Your task to perform on an android device: Show me popular games on the Play Store Image 0: 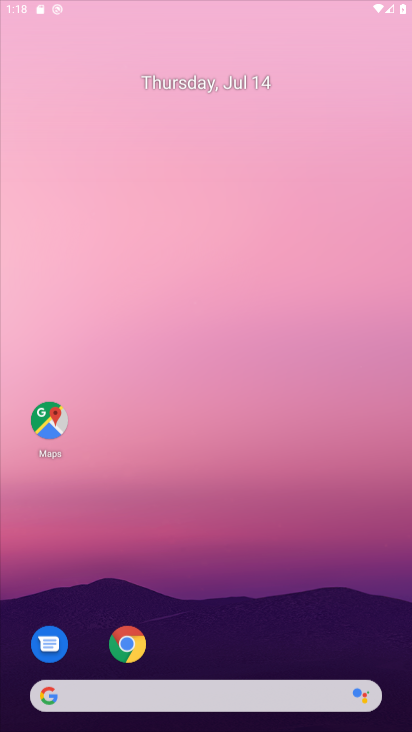
Step 0: drag from (204, 647) to (309, 140)
Your task to perform on an android device: Show me popular games on the Play Store Image 1: 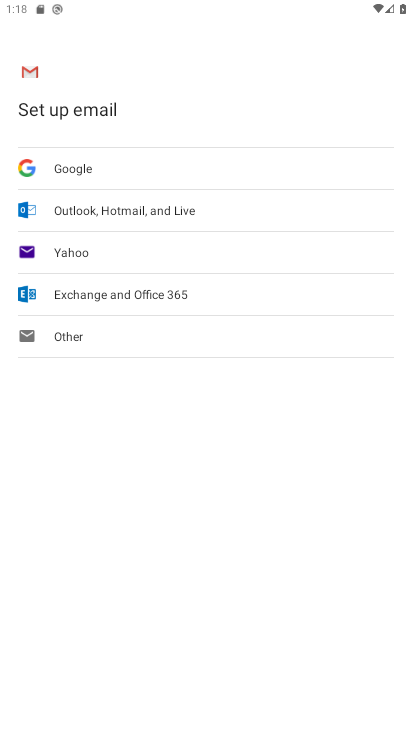
Step 1: press home button
Your task to perform on an android device: Show me popular games on the Play Store Image 2: 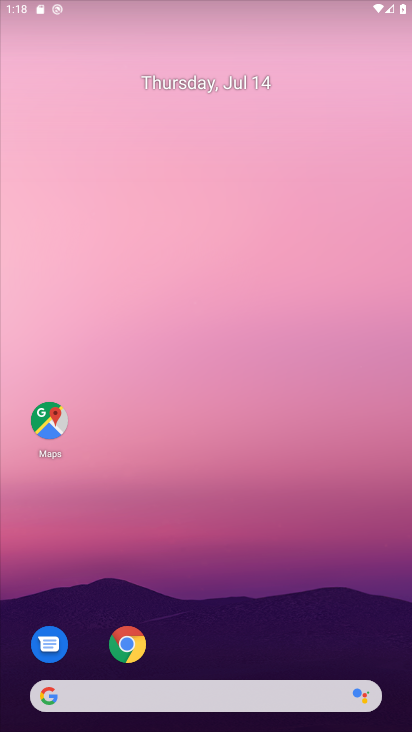
Step 2: drag from (174, 635) to (234, 126)
Your task to perform on an android device: Show me popular games on the Play Store Image 3: 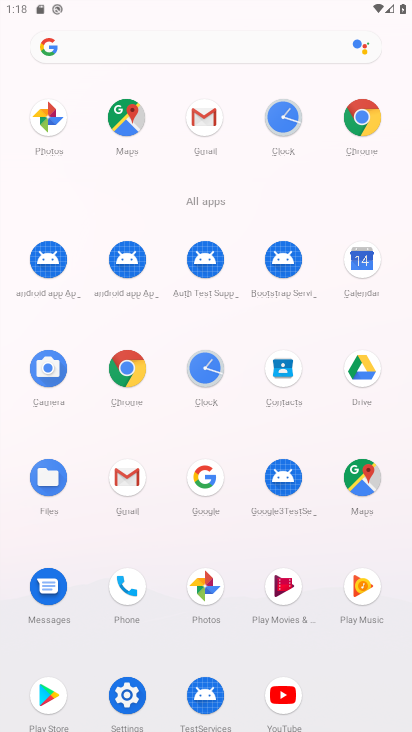
Step 3: click (54, 698)
Your task to perform on an android device: Show me popular games on the Play Store Image 4: 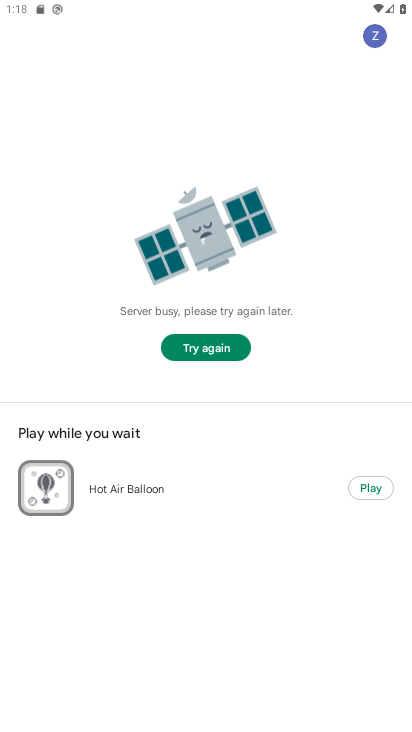
Step 4: task complete